Your task to perform on an android device: Show me recent news Image 0: 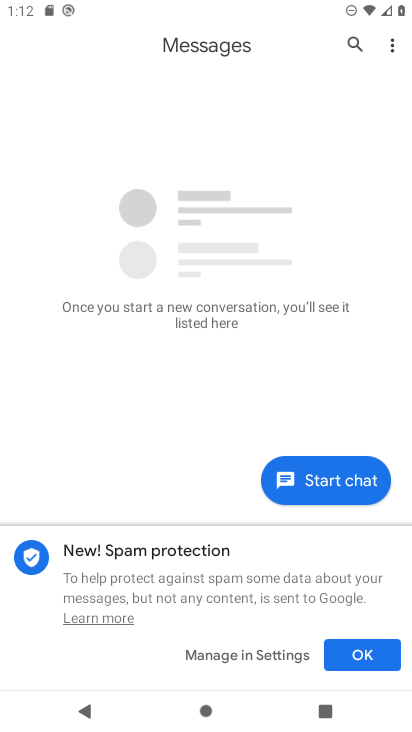
Step 0: press home button
Your task to perform on an android device: Show me recent news Image 1: 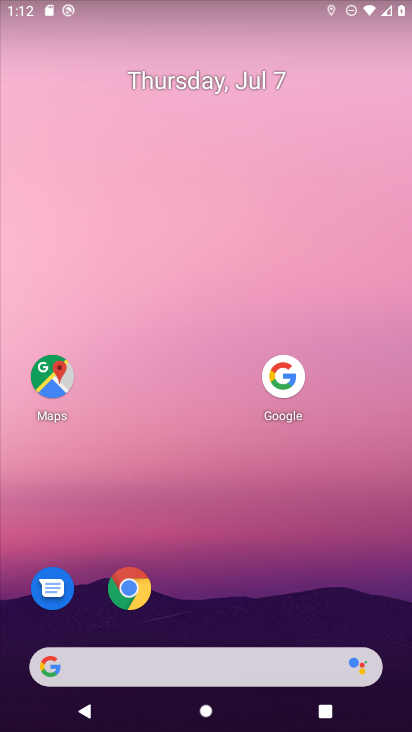
Step 1: click (126, 587)
Your task to perform on an android device: Show me recent news Image 2: 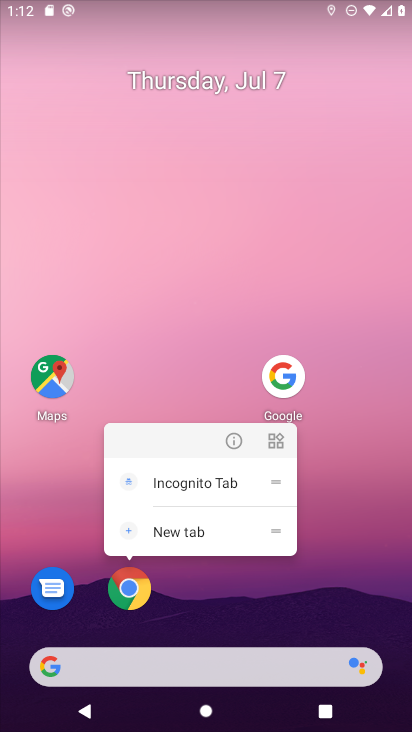
Step 2: click (130, 593)
Your task to perform on an android device: Show me recent news Image 3: 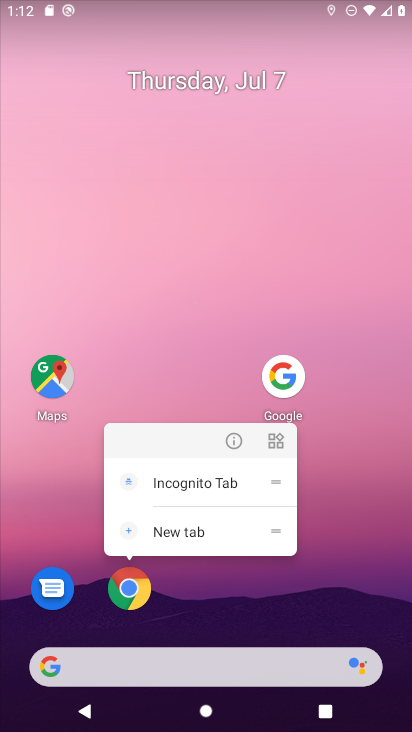
Step 3: click (130, 592)
Your task to perform on an android device: Show me recent news Image 4: 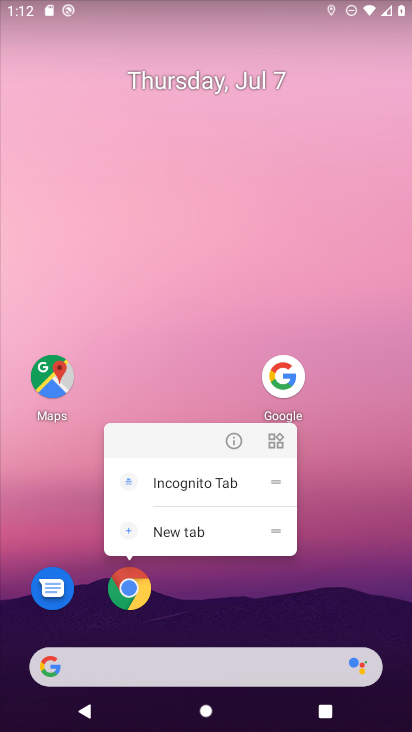
Step 4: click (130, 585)
Your task to perform on an android device: Show me recent news Image 5: 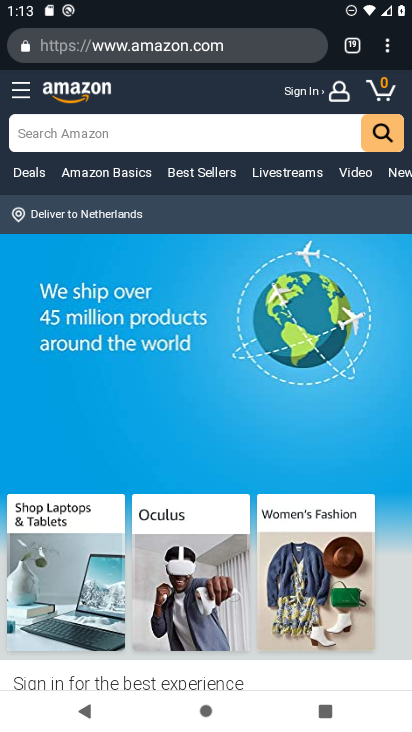
Step 5: drag from (390, 53) to (271, 96)
Your task to perform on an android device: Show me recent news Image 6: 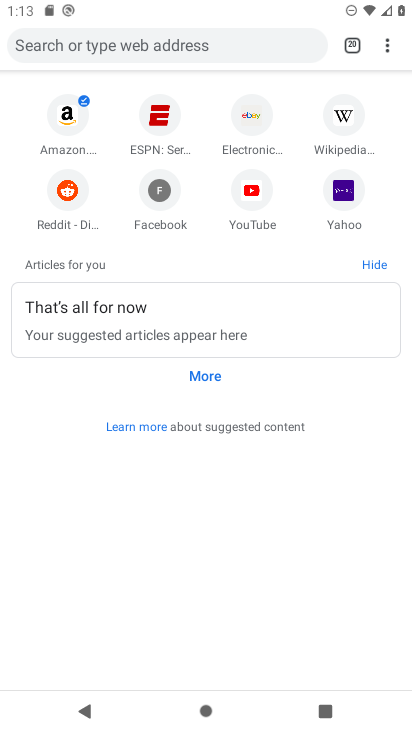
Step 6: click (210, 367)
Your task to perform on an android device: Show me recent news Image 7: 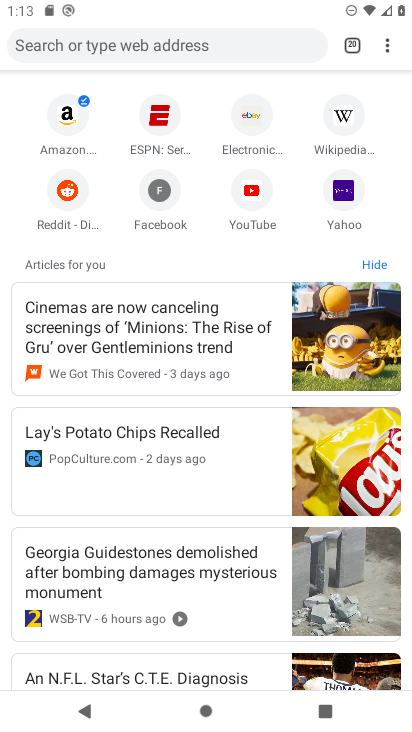
Step 7: task complete